Your task to perform on an android device: remove spam from my inbox in the gmail app Image 0: 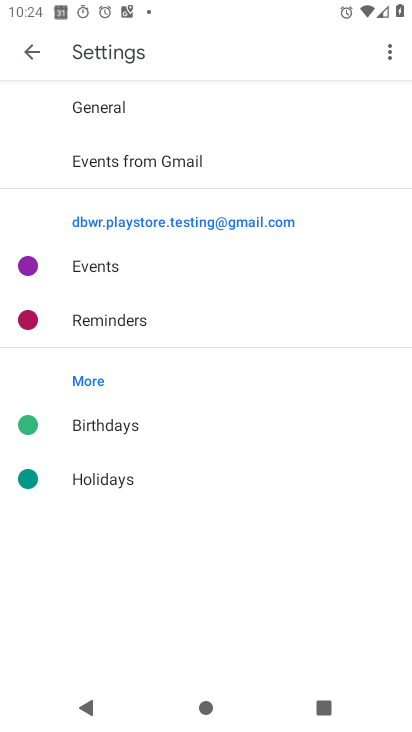
Step 0: press home button
Your task to perform on an android device: remove spam from my inbox in the gmail app Image 1: 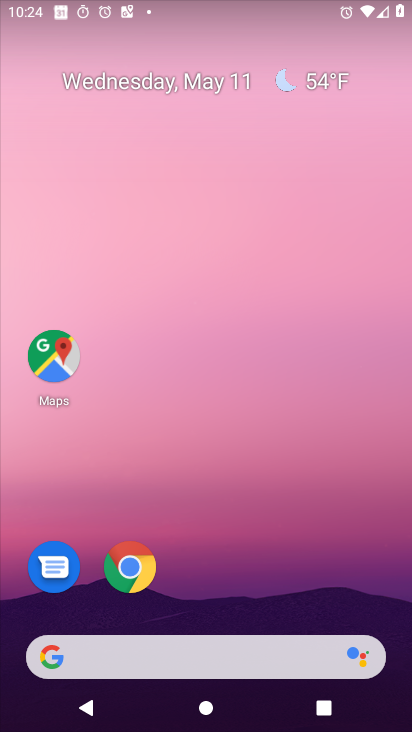
Step 1: drag from (239, 610) to (326, 9)
Your task to perform on an android device: remove spam from my inbox in the gmail app Image 2: 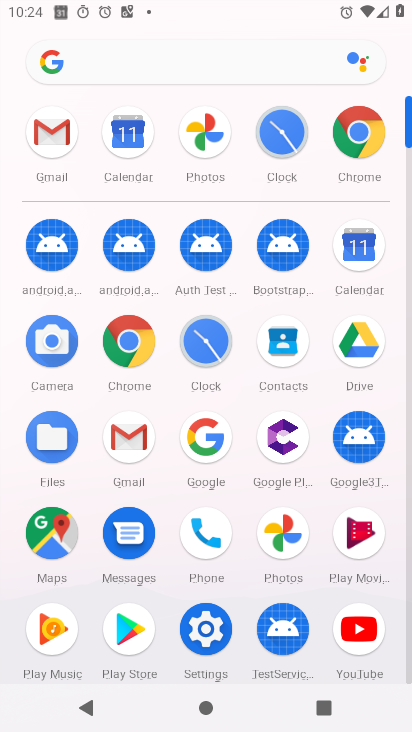
Step 2: click (136, 437)
Your task to perform on an android device: remove spam from my inbox in the gmail app Image 3: 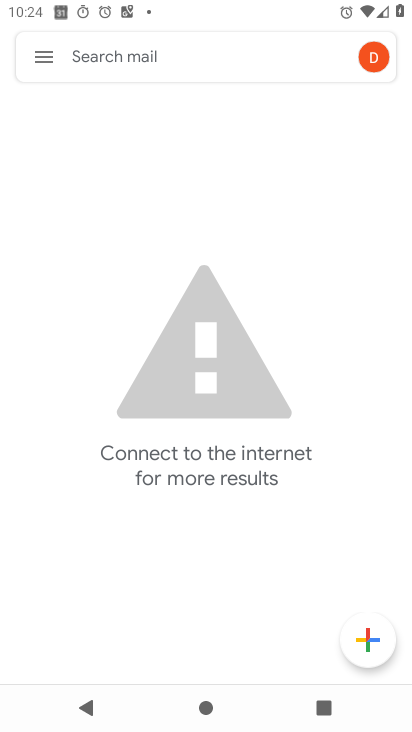
Step 3: click (55, 50)
Your task to perform on an android device: remove spam from my inbox in the gmail app Image 4: 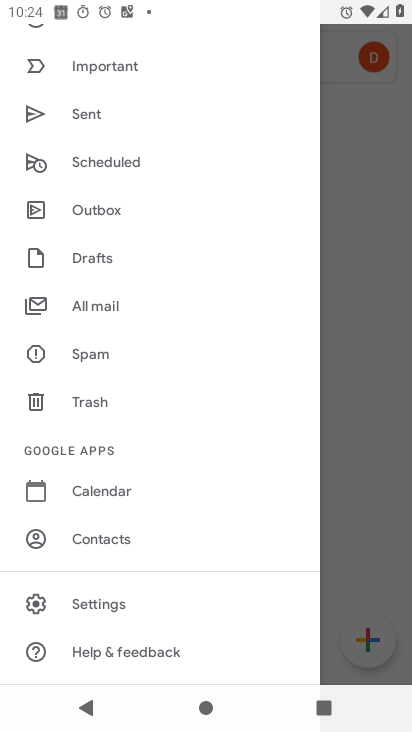
Step 4: click (115, 353)
Your task to perform on an android device: remove spam from my inbox in the gmail app Image 5: 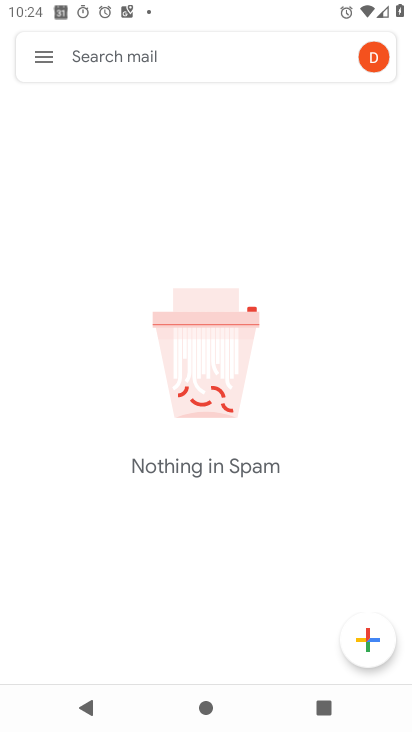
Step 5: task complete